Your task to perform on an android device: add a label to a message in the gmail app Image 0: 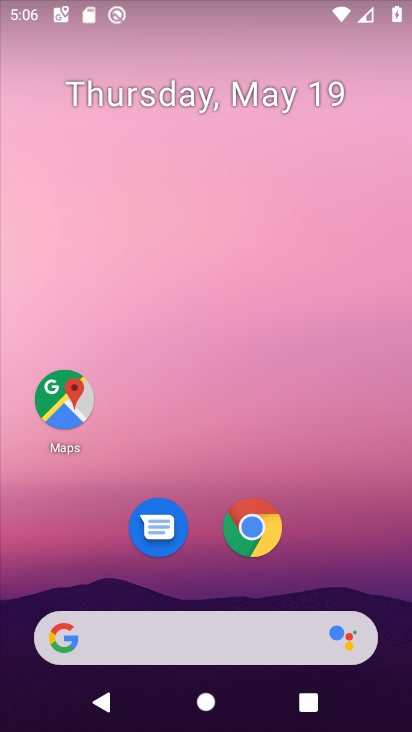
Step 0: drag from (345, 519) to (222, 65)
Your task to perform on an android device: add a label to a message in the gmail app Image 1: 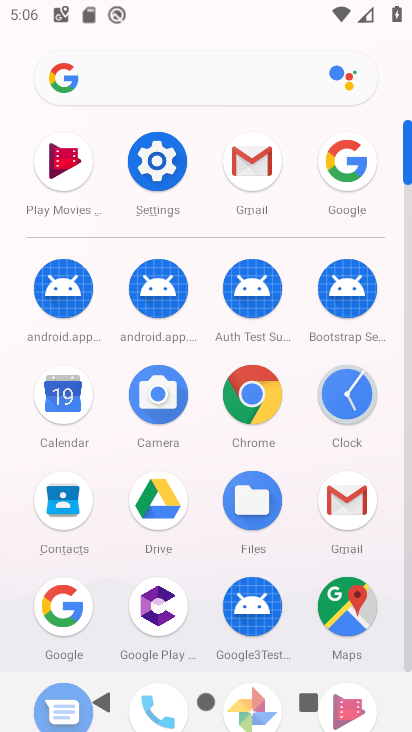
Step 1: click (346, 501)
Your task to perform on an android device: add a label to a message in the gmail app Image 2: 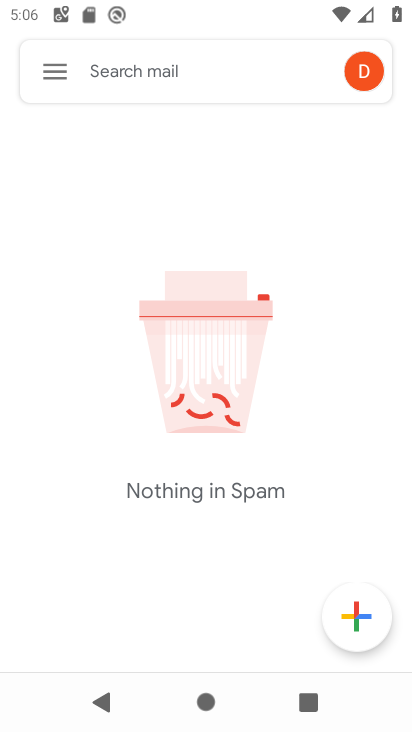
Step 2: click (54, 76)
Your task to perform on an android device: add a label to a message in the gmail app Image 3: 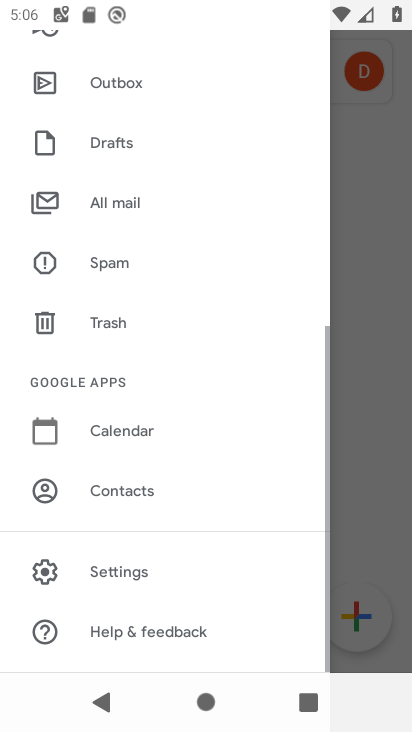
Step 3: drag from (161, 115) to (154, 394)
Your task to perform on an android device: add a label to a message in the gmail app Image 4: 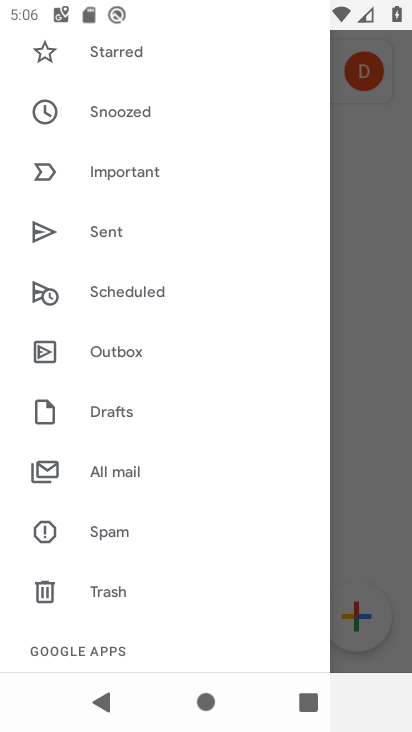
Step 4: click (118, 478)
Your task to perform on an android device: add a label to a message in the gmail app Image 5: 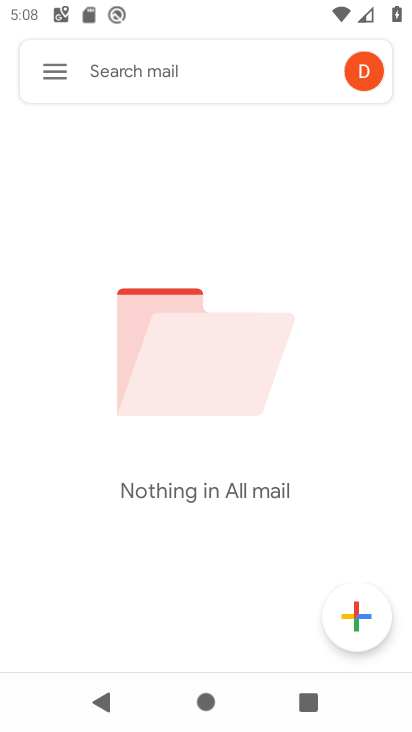
Step 5: task complete